Your task to perform on an android device: What's the weather? Image 0: 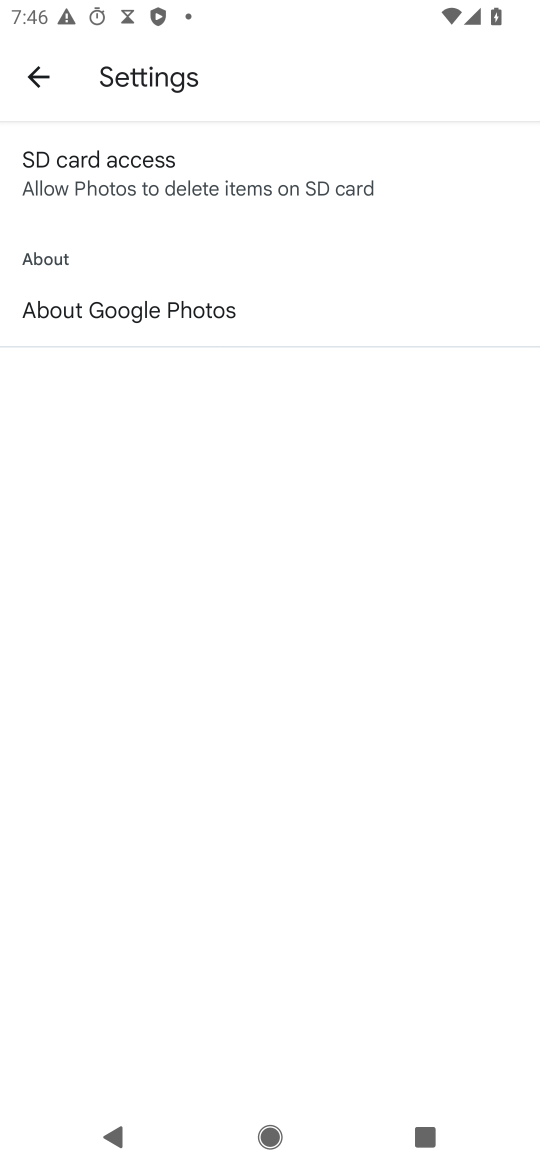
Step 0: press home button
Your task to perform on an android device: What's the weather? Image 1: 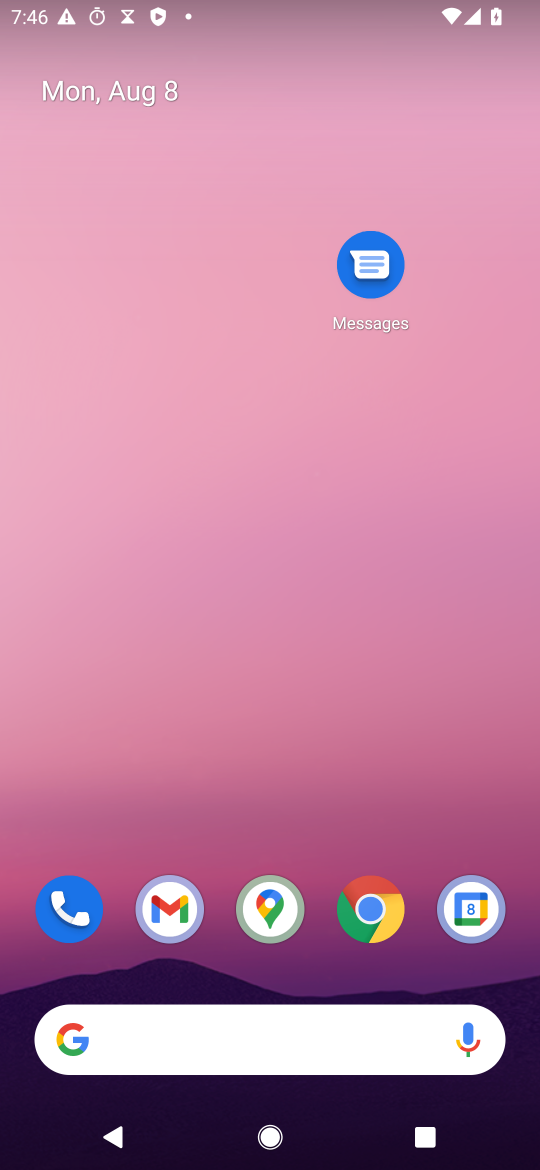
Step 1: click (170, 1048)
Your task to perform on an android device: What's the weather? Image 2: 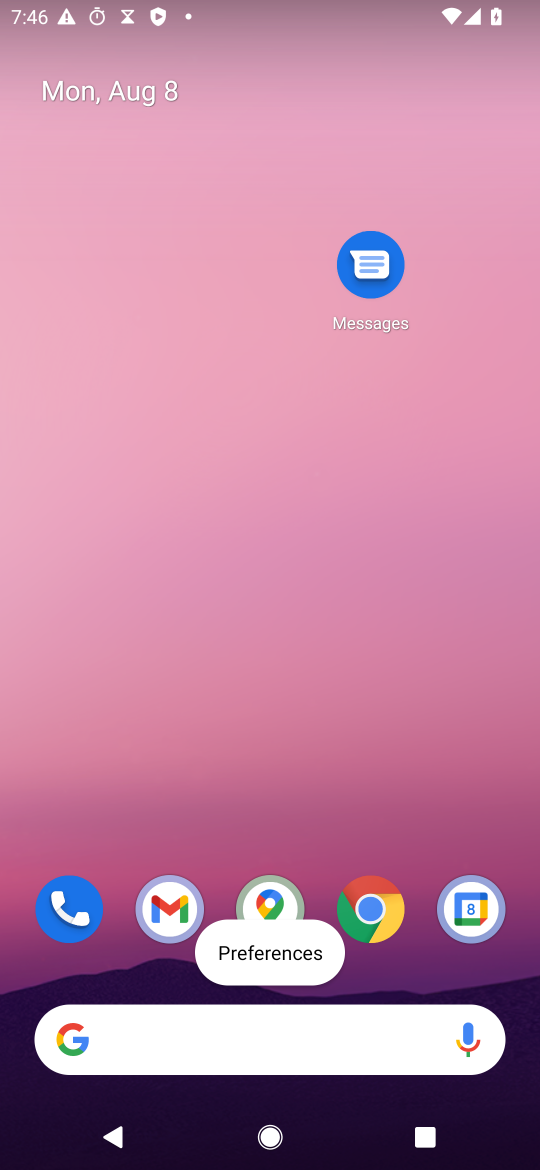
Step 2: click (184, 1042)
Your task to perform on an android device: What's the weather? Image 3: 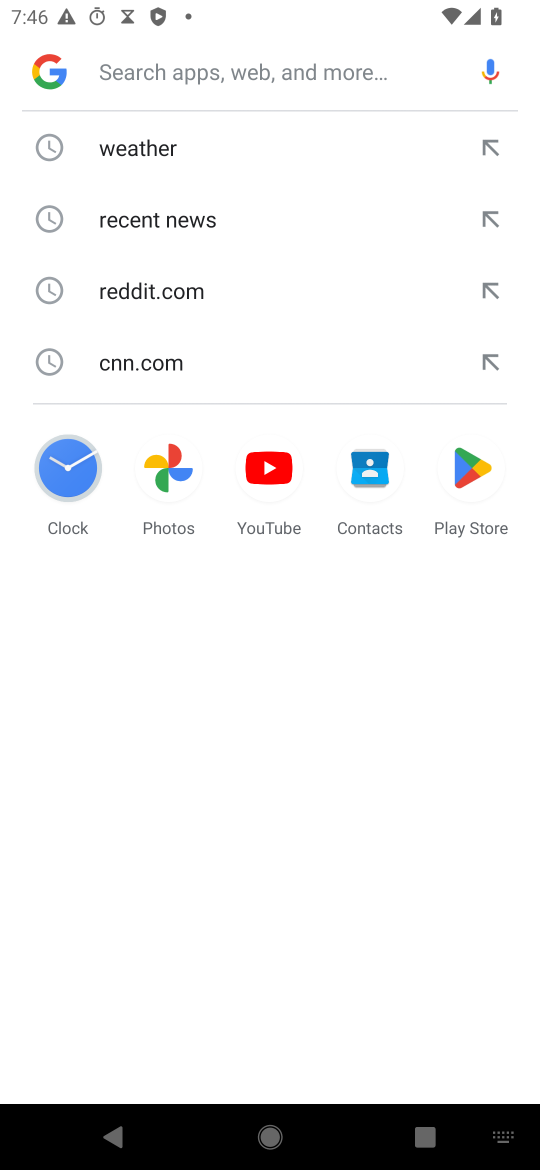
Step 3: click (155, 155)
Your task to perform on an android device: What's the weather? Image 4: 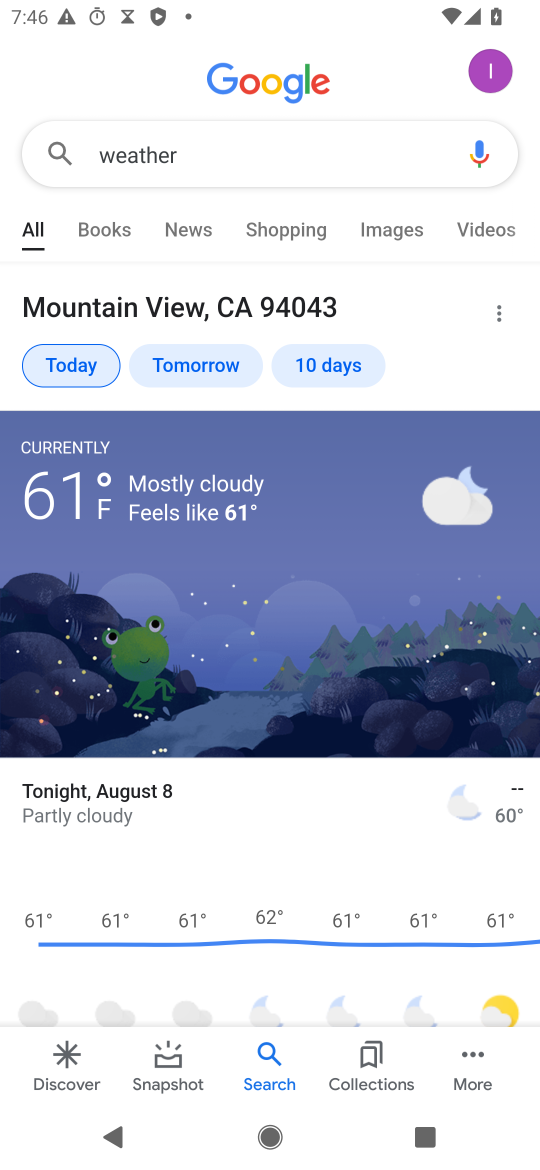
Step 4: task complete